Your task to perform on an android device: Open calendar and show me the third week of next month Image 0: 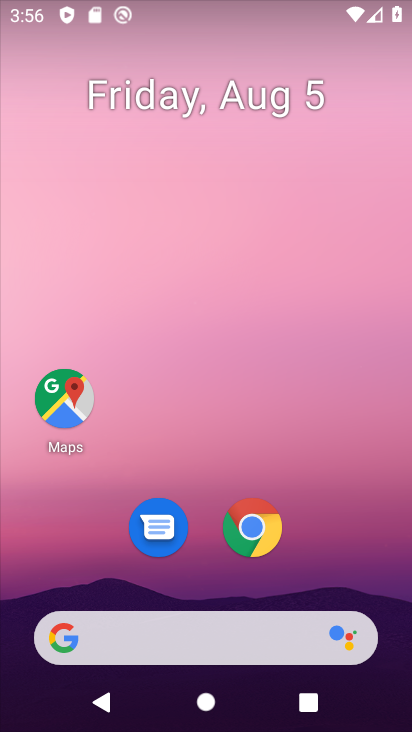
Step 0: drag from (197, 577) to (190, 36)
Your task to perform on an android device: Open calendar and show me the third week of next month Image 1: 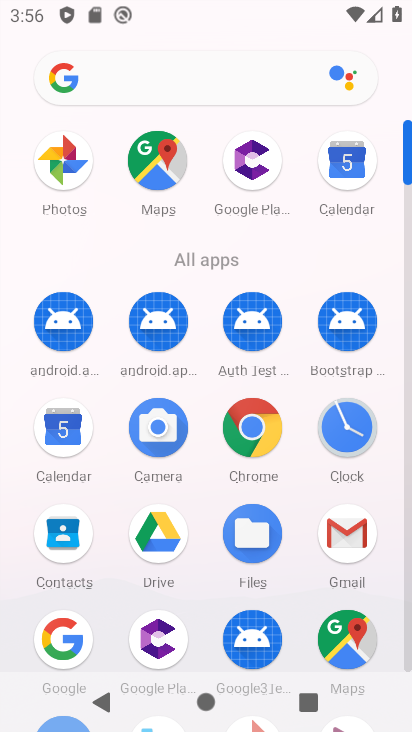
Step 1: click (60, 430)
Your task to perform on an android device: Open calendar and show me the third week of next month Image 2: 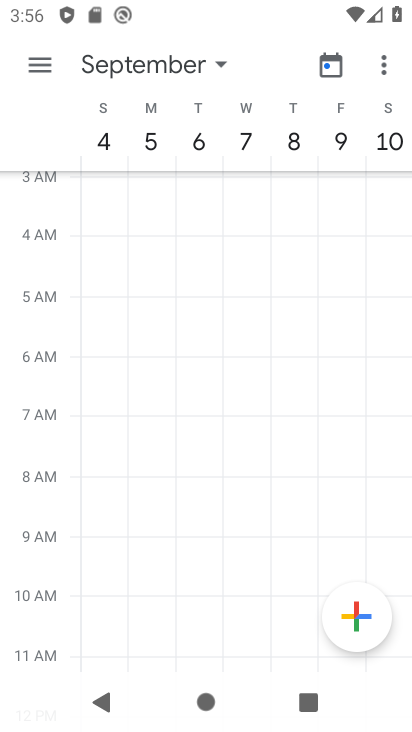
Step 2: click (37, 61)
Your task to perform on an android device: Open calendar and show me the third week of next month Image 3: 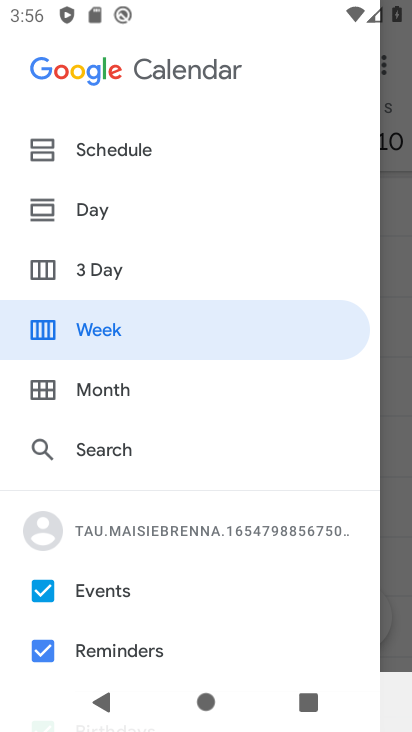
Step 3: click (101, 327)
Your task to perform on an android device: Open calendar and show me the third week of next month Image 4: 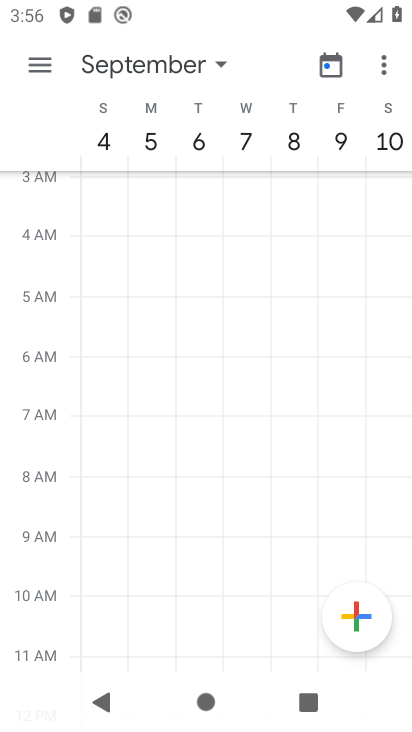
Step 4: click (190, 59)
Your task to perform on an android device: Open calendar and show me the third week of next month Image 5: 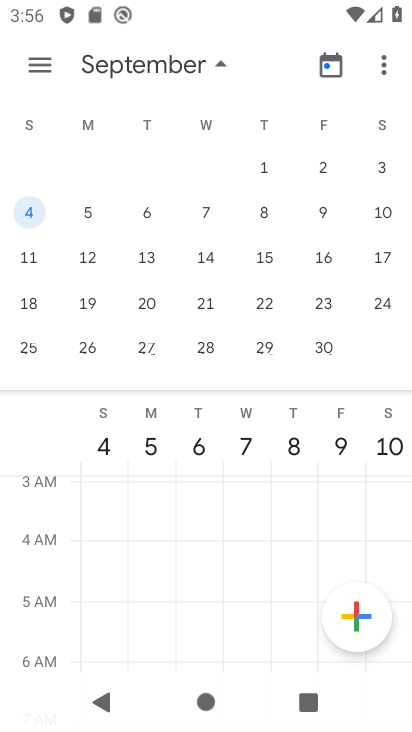
Step 5: click (28, 300)
Your task to perform on an android device: Open calendar and show me the third week of next month Image 6: 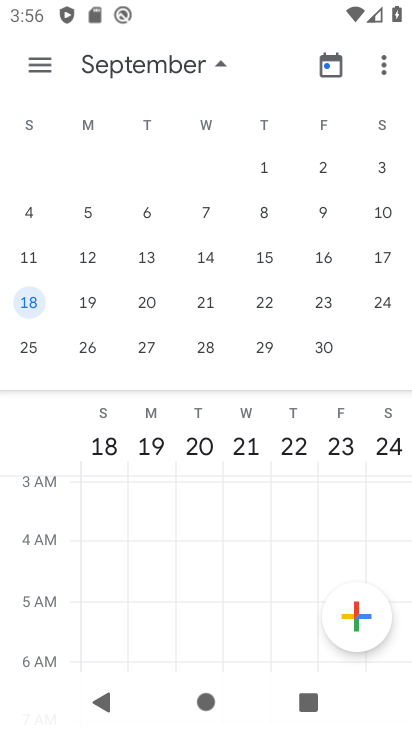
Step 6: click (214, 62)
Your task to perform on an android device: Open calendar and show me the third week of next month Image 7: 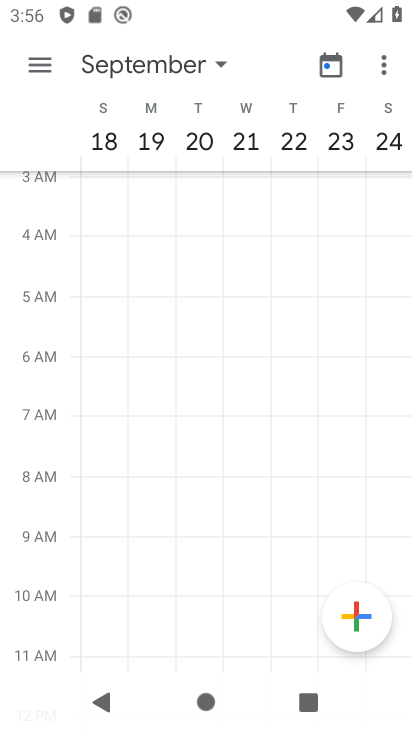
Step 7: task complete